Your task to perform on an android device: Open internet settings Image 0: 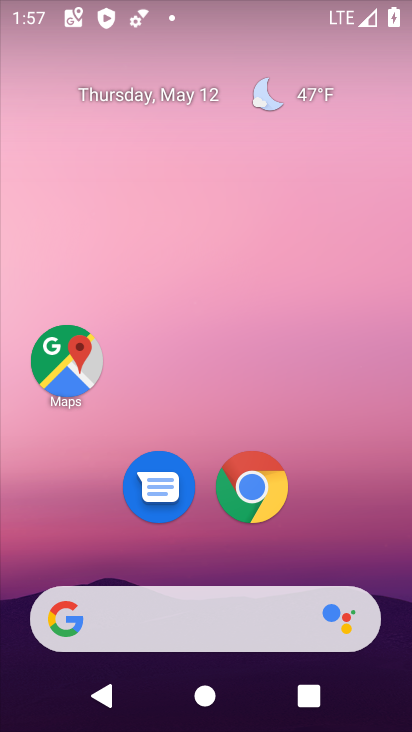
Step 0: drag from (326, 529) to (351, 18)
Your task to perform on an android device: Open internet settings Image 1: 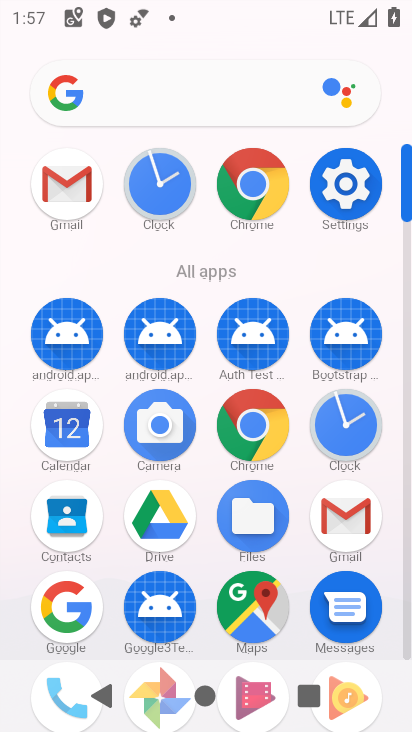
Step 1: click (335, 170)
Your task to perform on an android device: Open internet settings Image 2: 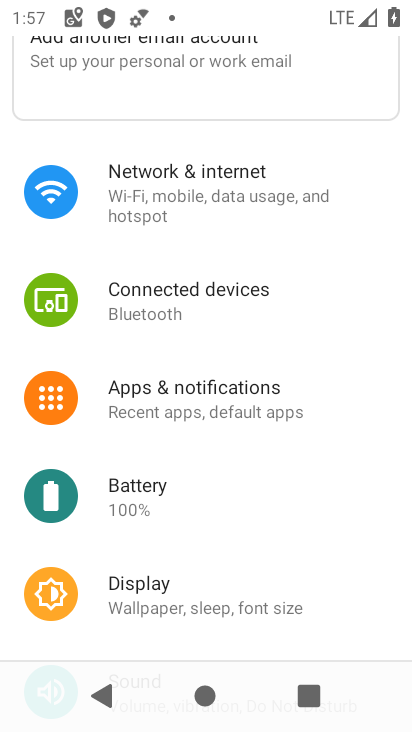
Step 2: click (206, 193)
Your task to perform on an android device: Open internet settings Image 3: 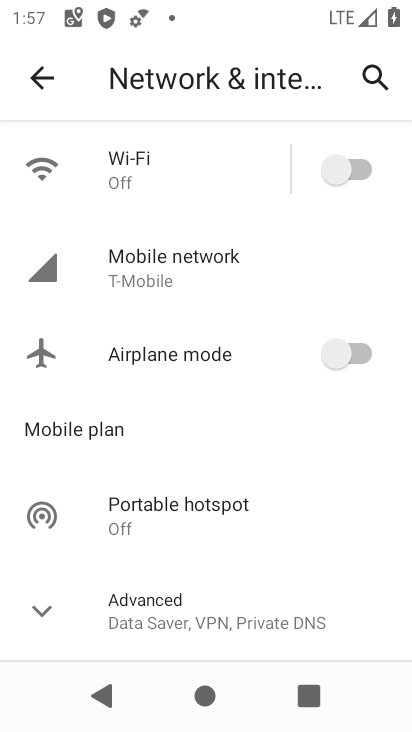
Step 3: task complete